Your task to perform on an android device: move an email to a new category in the gmail app Image 0: 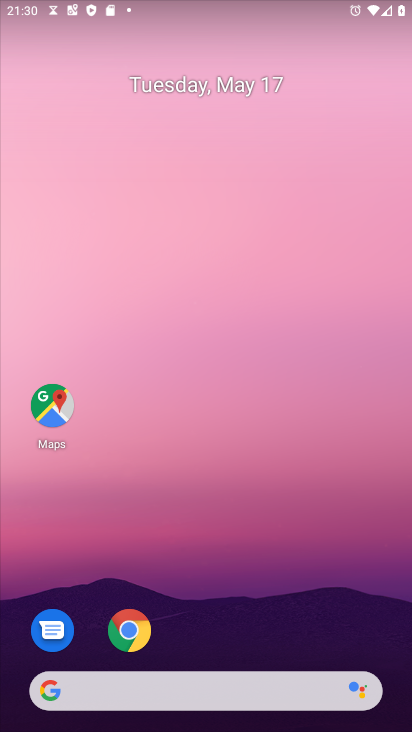
Step 0: drag from (181, 624) to (210, 94)
Your task to perform on an android device: move an email to a new category in the gmail app Image 1: 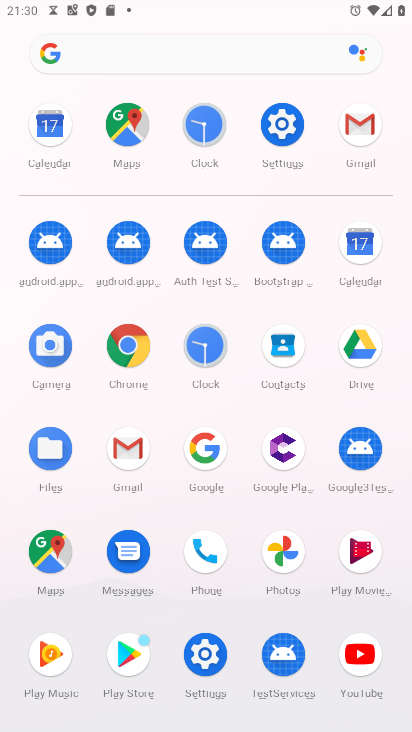
Step 1: click (365, 141)
Your task to perform on an android device: move an email to a new category in the gmail app Image 2: 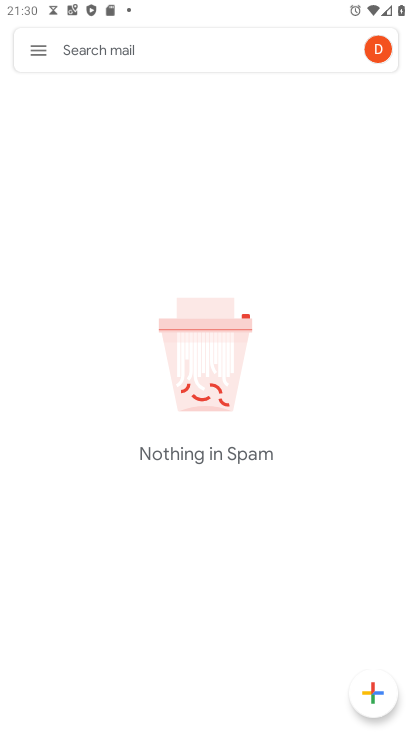
Step 2: click (35, 47)
Your task to perform on an android device: move an email to a new category in the gmail app Image 3: 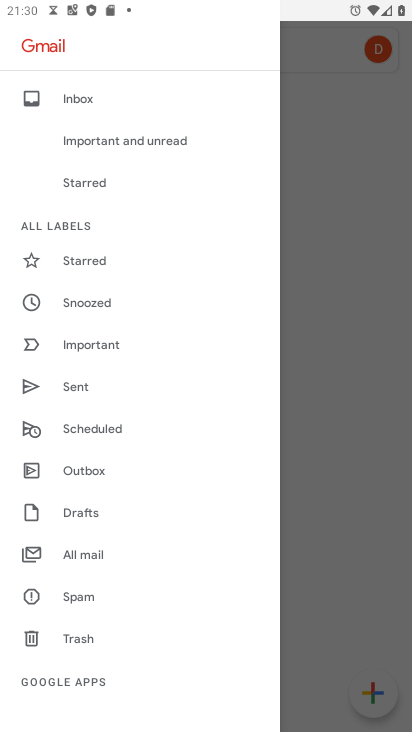
Step 3: drag from (119, 576) to (68, 577)
Your task to perform on an android device: move an email to a new category in the gmail app Image 4: 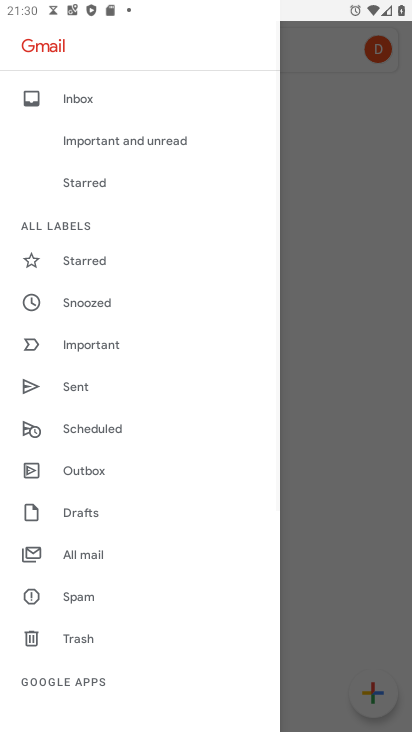
Step 4: click (322, 315)
Your task to perform on an android device: move an email to a new category in the gmail app Image 5: 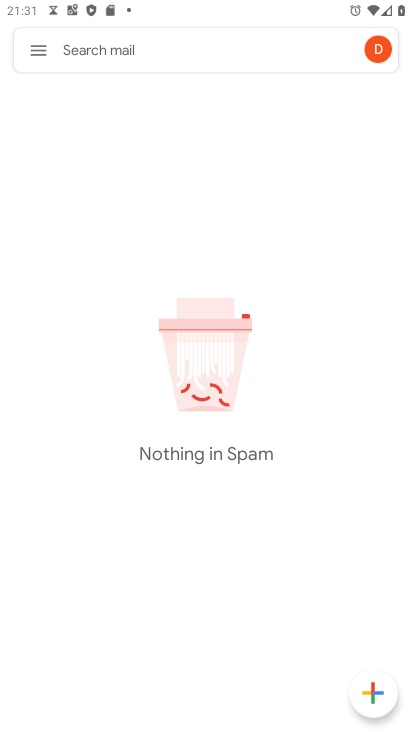
Step 5: task complete